Your task to perform on an android device: Go to Yahoo.com Image 0: 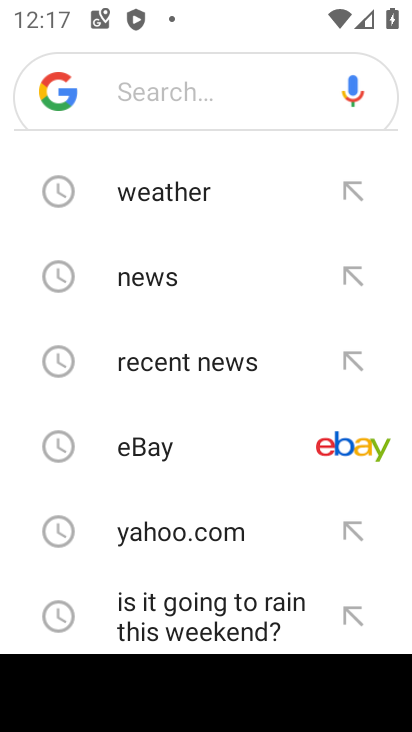
Step 0: press back button
Your task to perform on an android device: Go to Yahoo.com Image 1: 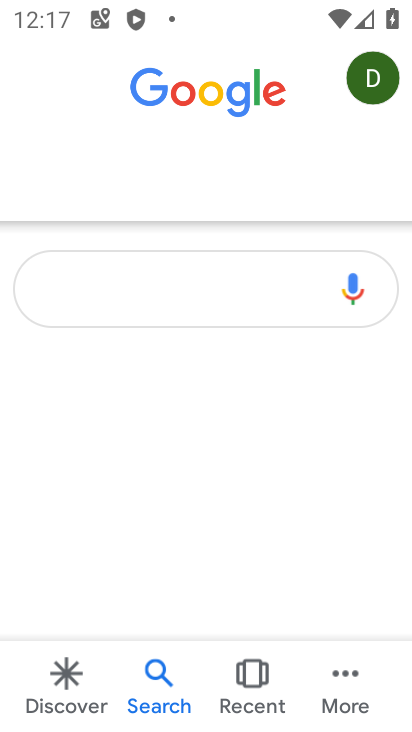
Step 1: press back button
Your task to perform on an android device: Go to Yahoo.com Image 2: 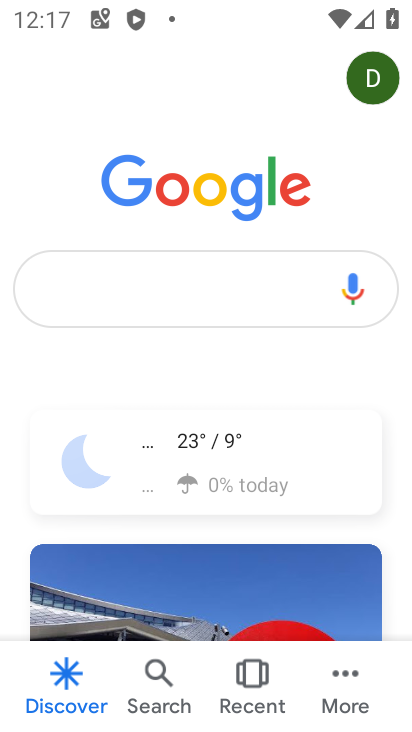
Step 2: press back button
Your task to perform on an android device: Go to Yahoo.com Image 3: 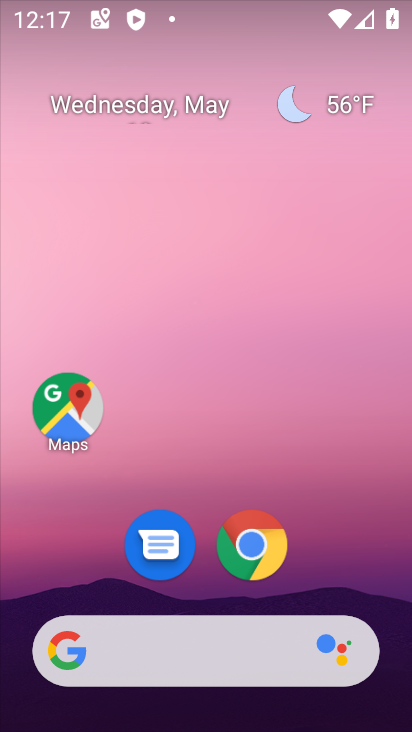
Step 3: click (249, 543)
Your task to perform on an android device: Go to Yahoo.com Image 4: 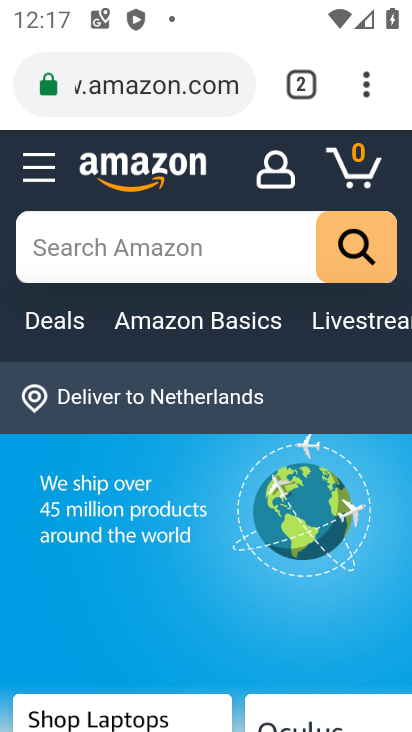
Step 4: click (221, 91)
Your task to perform on an android device: Go to Yahoo.com Image 5: 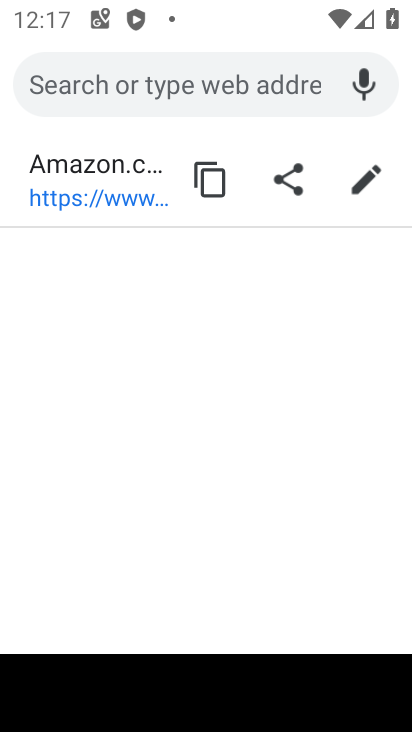
Step 5: type "Yahoo.com"
Your task to perform on an android device: Go to Yahoo.com Image 6: 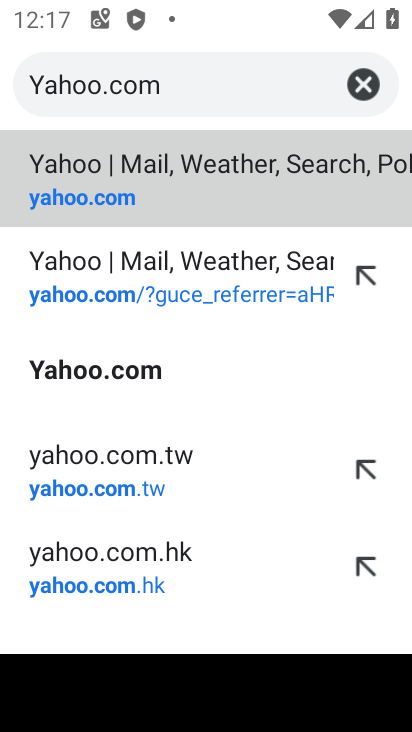
Step 6: click (67, 364)
Your task to perform on an android device: Go to Yahoo.com Image 7: 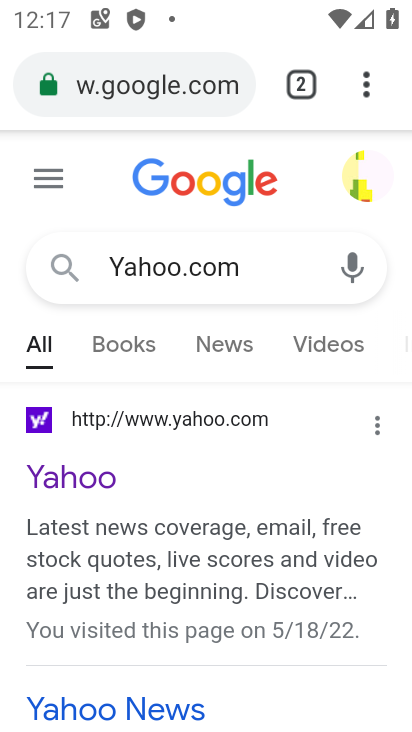
Step 7: click (55, 483)
Your task to perform on an android device: Go to Yahoo.com Image 8: 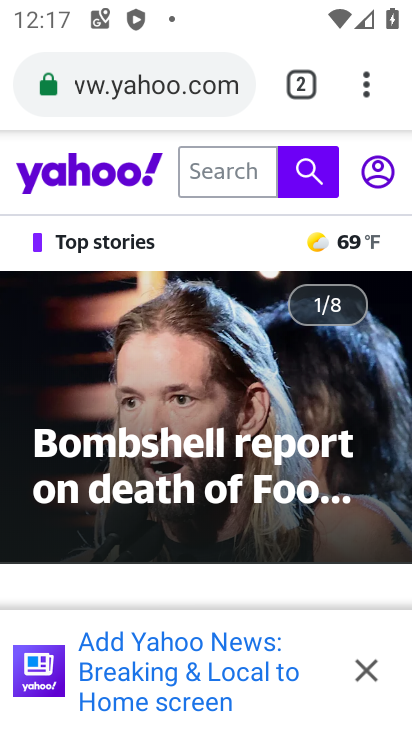
Step 8: task complete